Your task to perform on an android device: uninstall "PUBG MOBILE" Image 0: 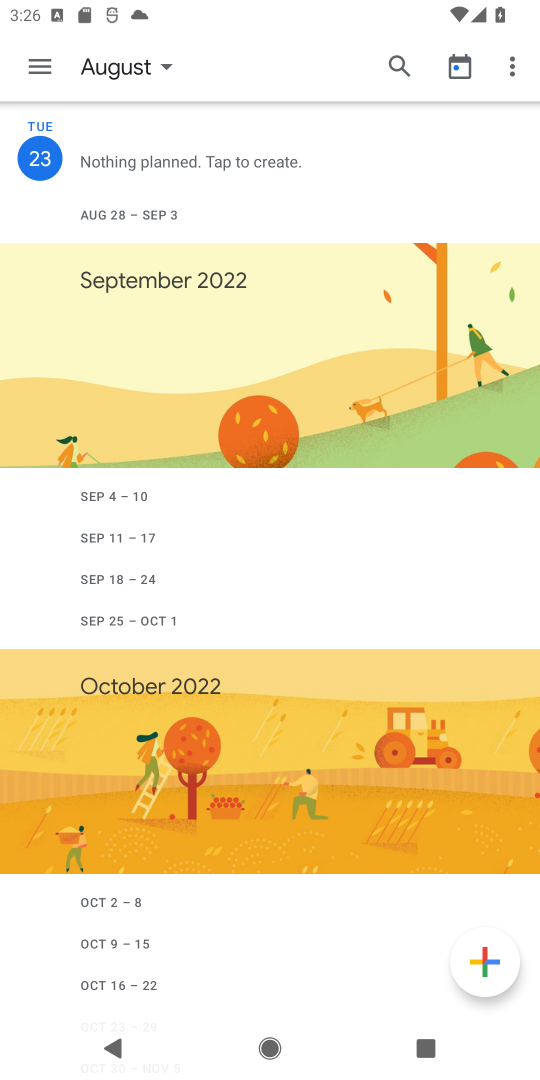
Step 0: press home button
Your task to perform on an android device: uninstall "PUBG MOBILE" Image 1: 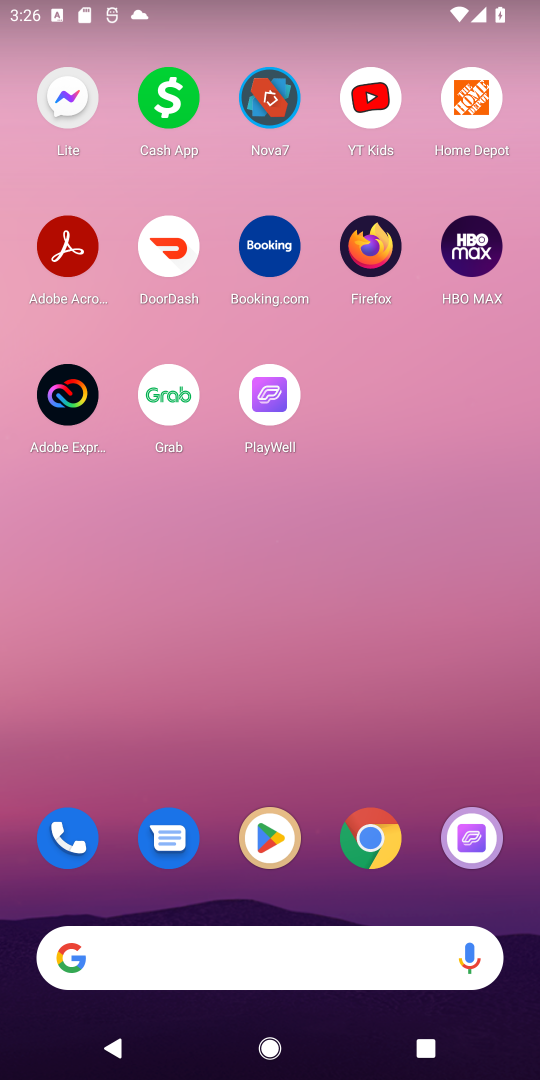
Step 1: click (278, 847)
Your task to perform on an android device: uninstall "PUBG MOBILE" Image 2: 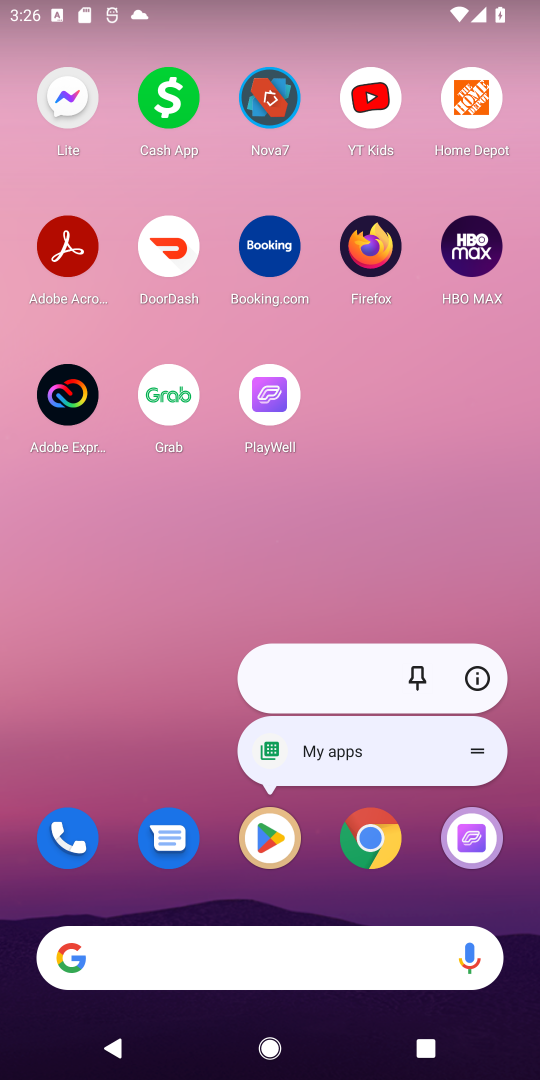
Step 2: click (278, 847)
Your task to perform on an android device: uninstall "PUBG MOBILE" Image 3: 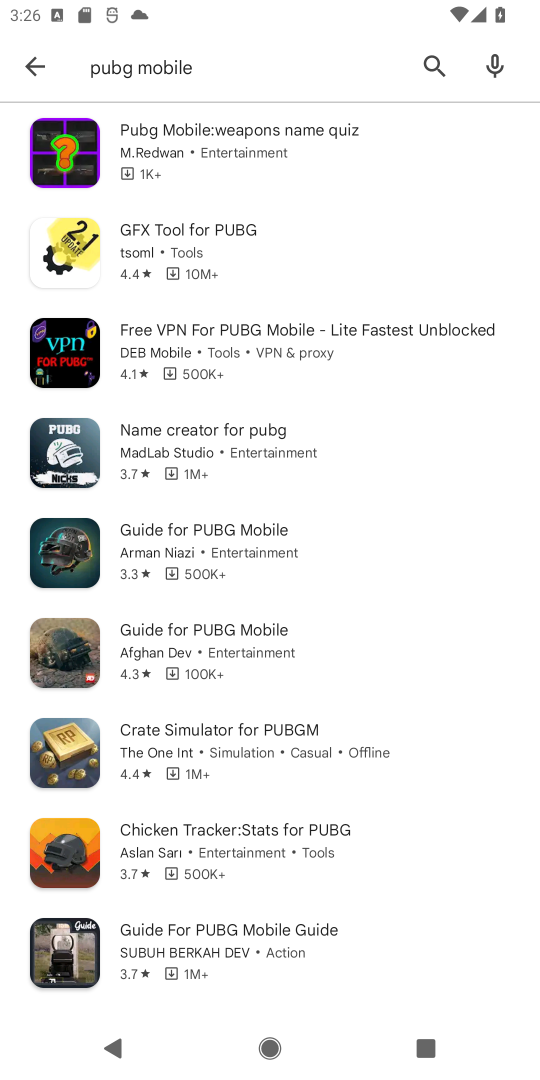
Step 3: click (31, 57)
Your task to perform on an android device: uninstall "PUBG MOBILE" Image 4: 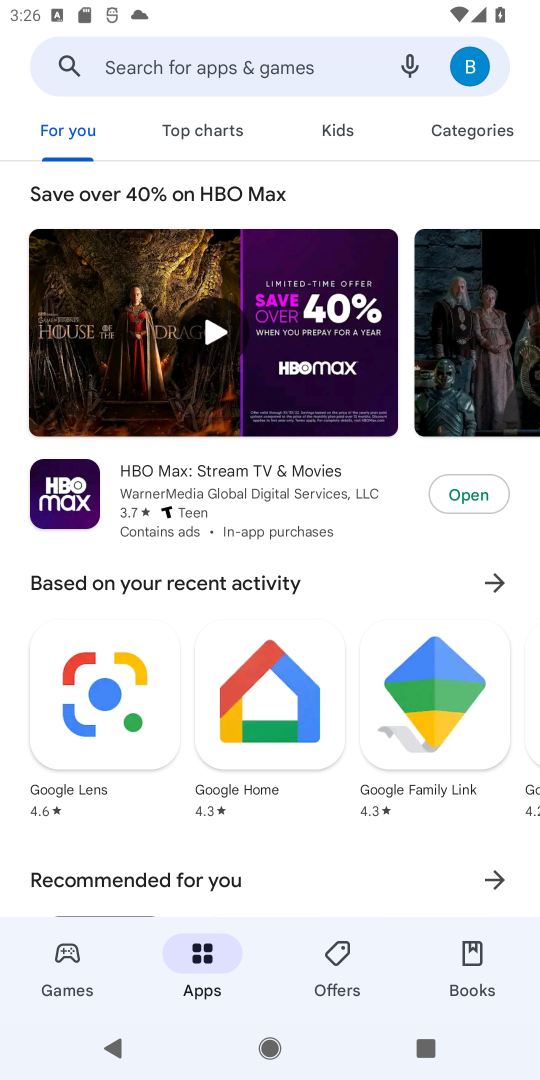
Step 4: click (111, 83)
Your task to perform on an android device: uninstall "PUBG MOBILE" Image 5: 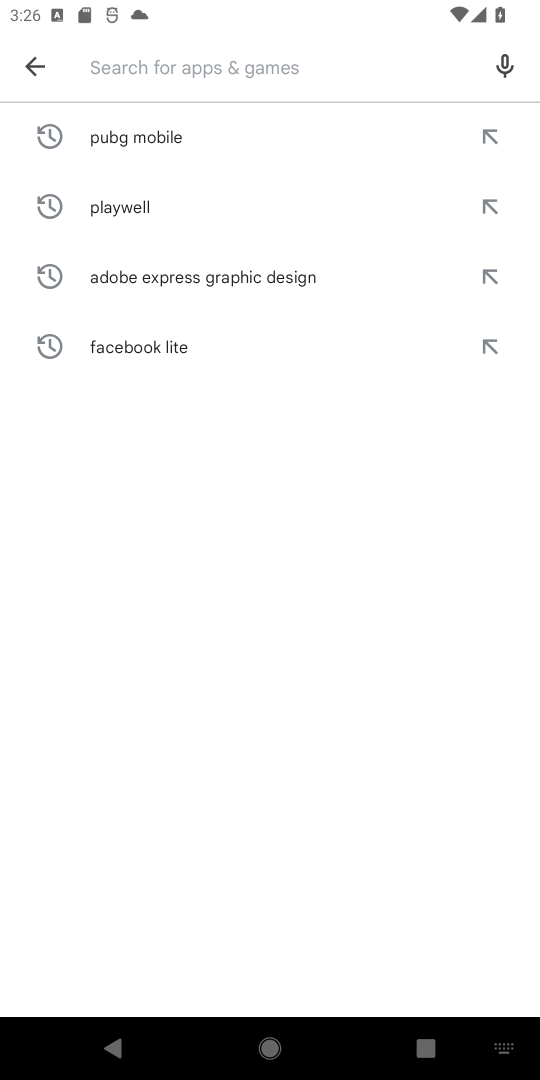
Step 5: type "PUBG MOBILE"
Your task to perform on an android device: uninstall "PUBG MOBILE" Image 6: 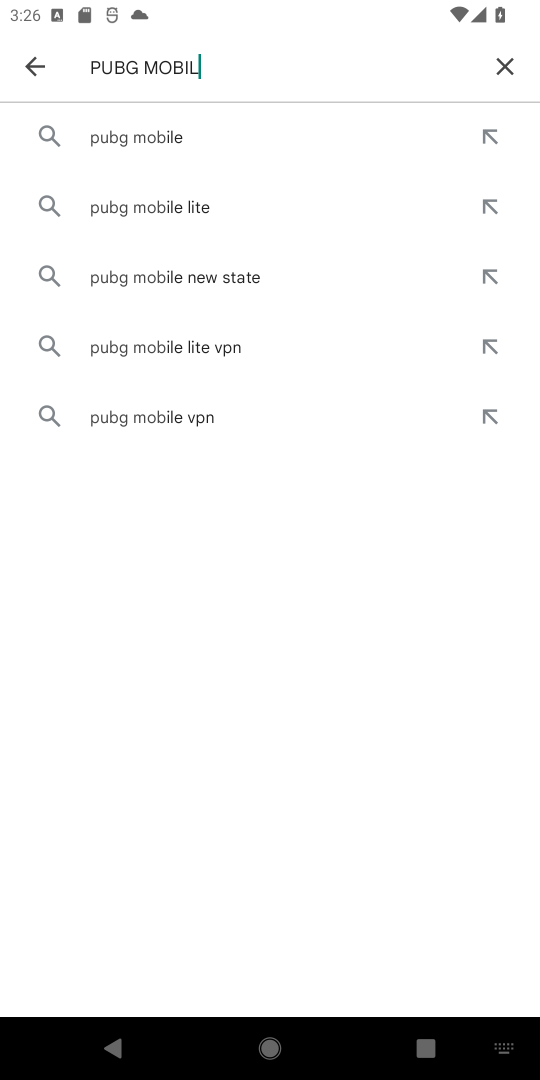
Step 6: type ""
Your task to perform on an android device: uninstall "PUBG MOBILE" Image 7: 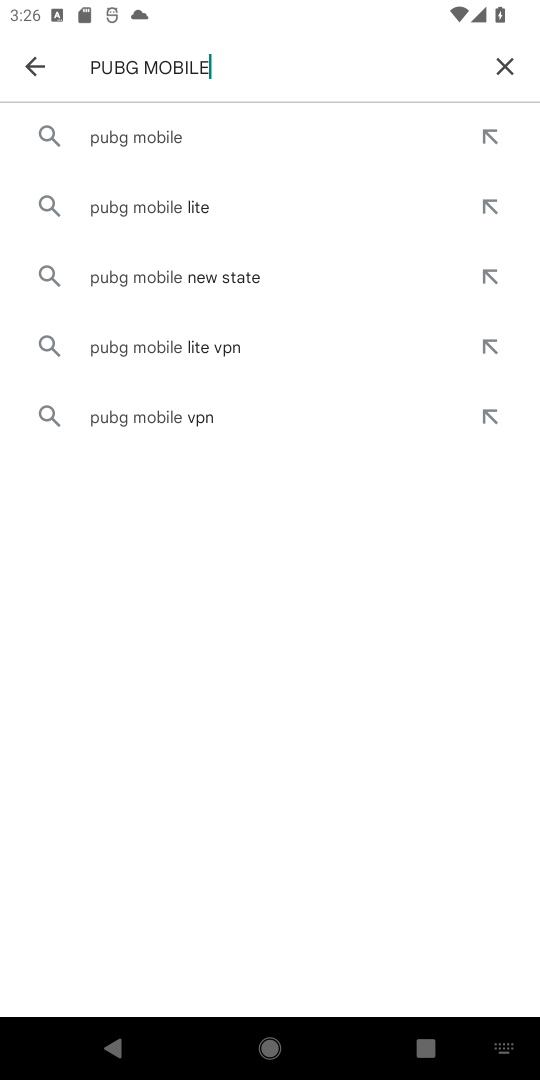
Step 7: click (112, 142)
Your task to perform on an android device: uninstall "PUBG MOBILE" Image 8: 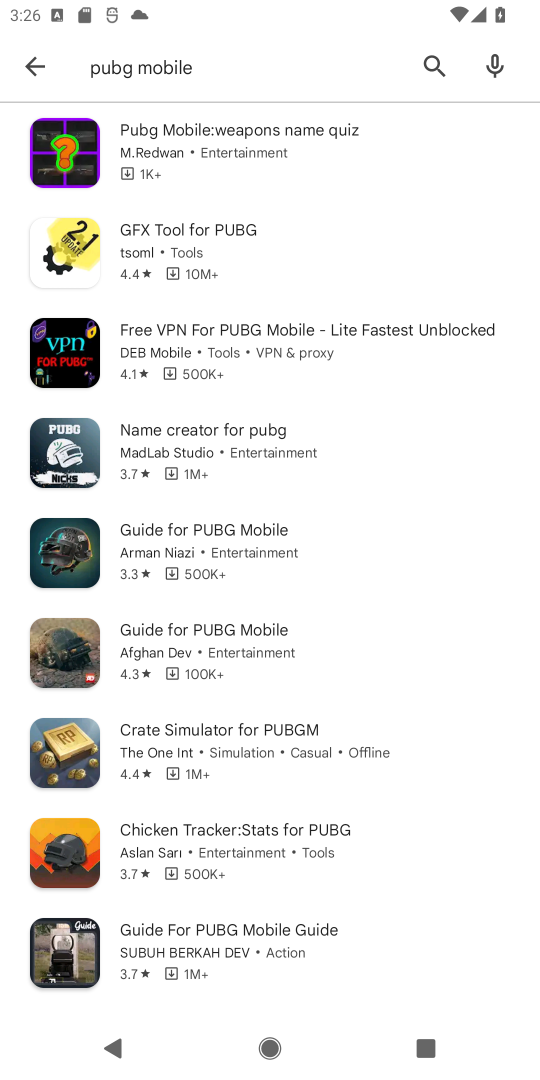
Step 8: task complete